Your task to perform on an android device: toggle priority inbox in the gmail app Image 0: 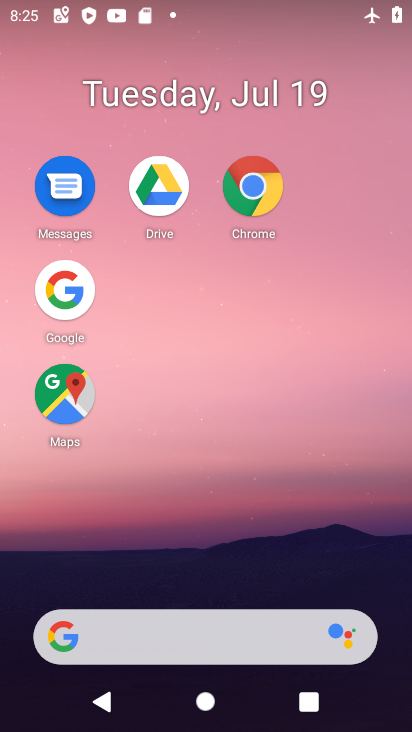
Step 0: drag from (256, 575) to (292, 91)
Your task to perform on an android device: toggle priority inbox in the gmail app Image 1: 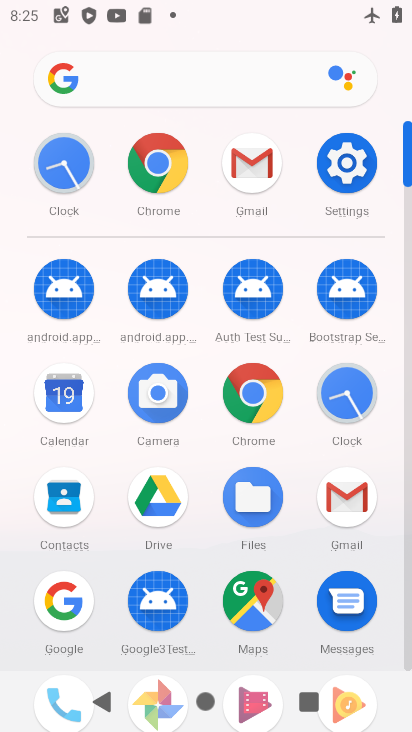
Step 1: click (358, 501)
Your task to perform on an android device: toggle priority inbox in the gmail app Image 2: 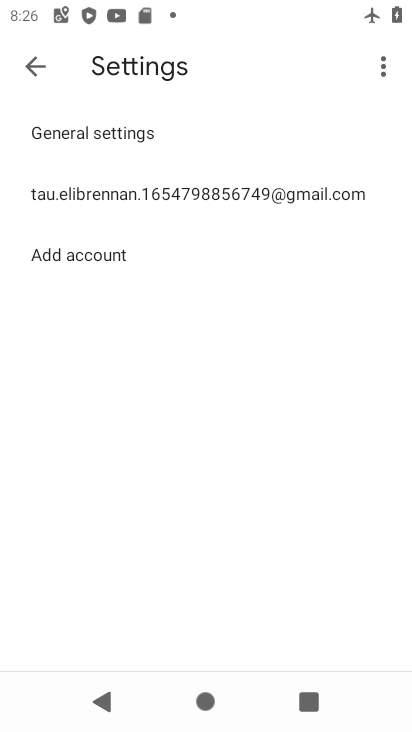
Step 2: click (119, 201)
Your task to perform on an android device: toggle priority inbox in the gmail app Image 3: 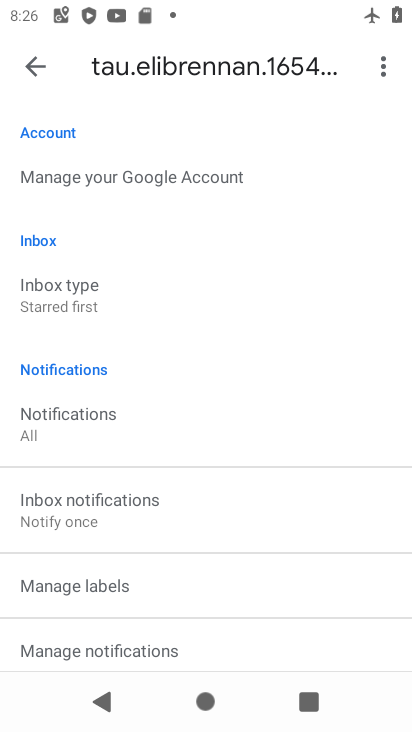
Step 3: click (64, 293)
Your task to perform on an android device: toggle priority inbox in the gmail app Image 4: 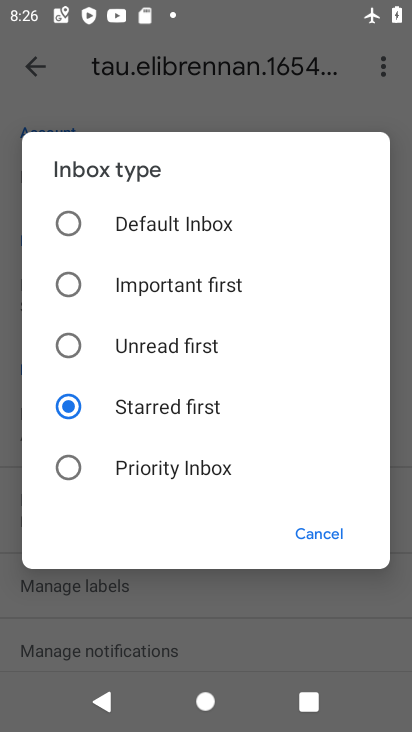
Step 4: click (143, 463)
Your task to perform on an android device: toggle priority inbox in the gmail app Image 5: 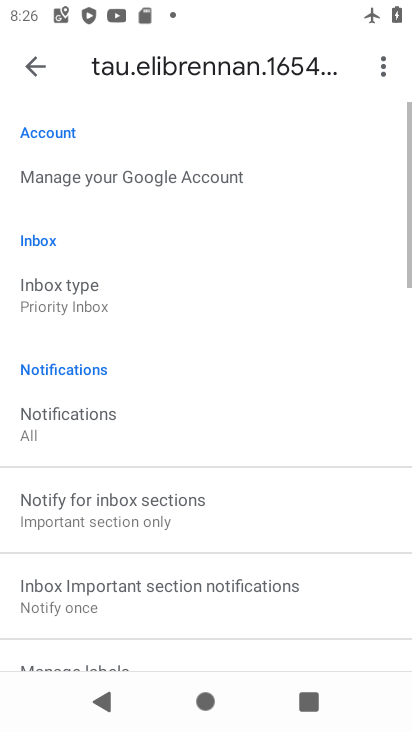
Step 5: click (143, 463)
Your task to perform on an android device: toggle priority inbox in the gmail app Image 6: 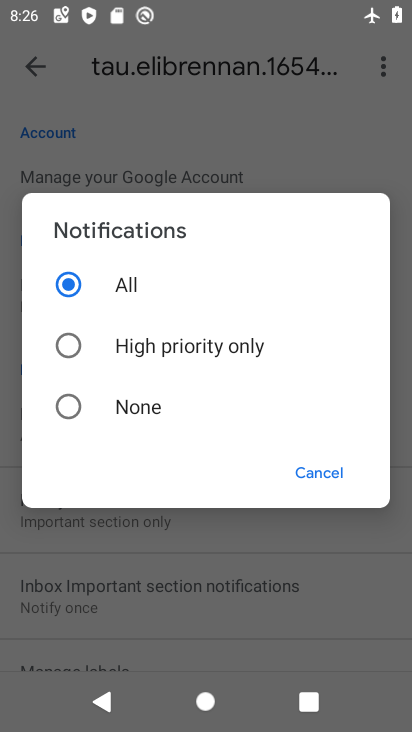
Step 6: task complete